Your task to perform on an android device: Go to Reddit.com Image 0: 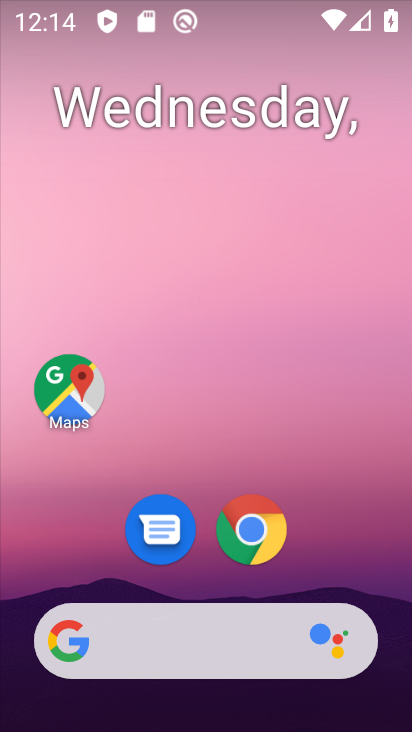
Step 0: drag from (316, 512) to (300, 214)
Your task to perform on an android device: Go to Reddit.com Image 1: 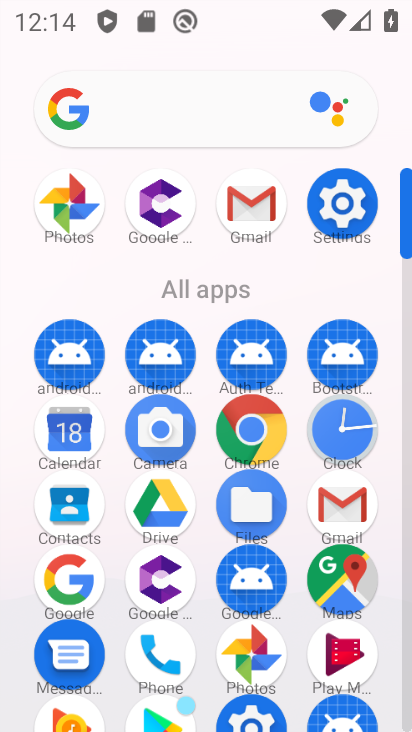
Step 1: click (74, 582)
Your task to perform on an android device: Go to Reddit.com Image 2: 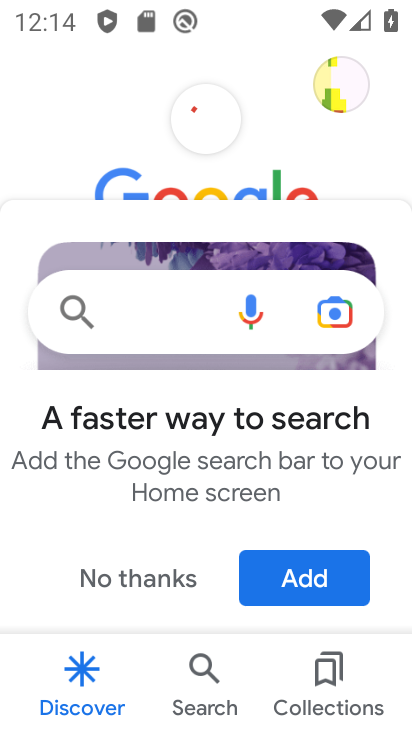
Step 2: drag from (153, 319) to (100, 319)
Your task to perform on an android device: Go to Reddit.com Image 3: 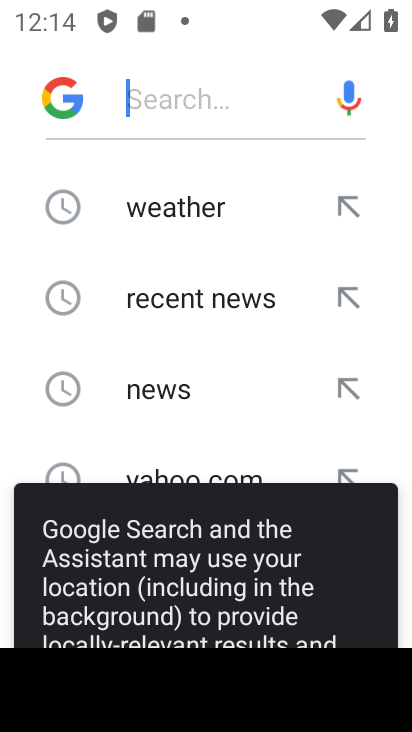
Step 3: drag from (205, 427) to (212, 213)
Your task to perform on an android device: Go to Reddit.com Image 4: 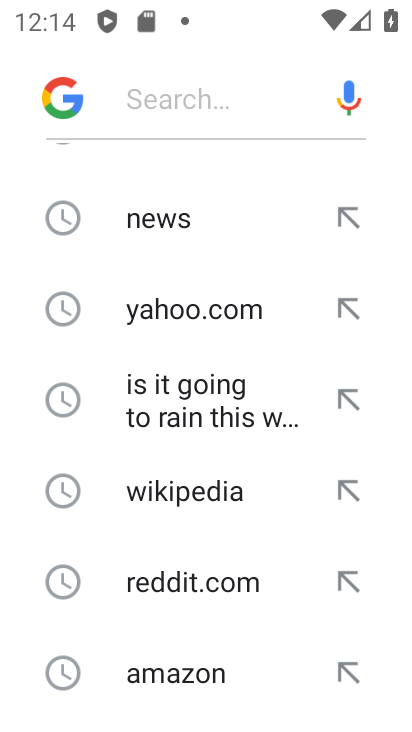
Step 4: drag from (199, 421) to (204, 238)
Your task to perform on an android device: Go to Reddit.com Image 5: 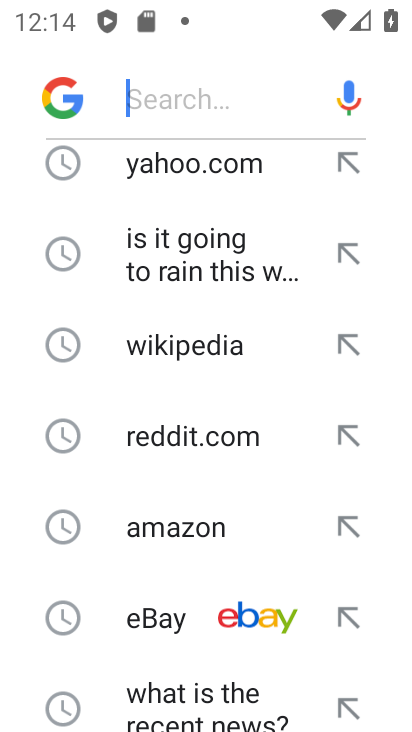
Step 5: click (220, 443)
Your task to perform on an android device: Go to Reddit.com Image 6: 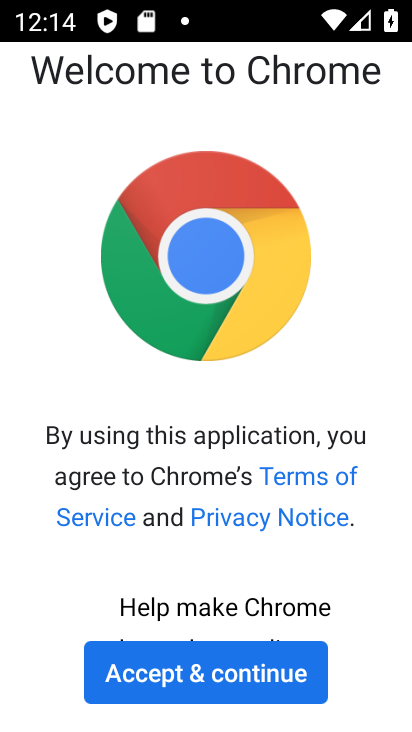
Step 6: click (272, 663)
Your task to perform on an android device: Go to Reddit.com Image 7: 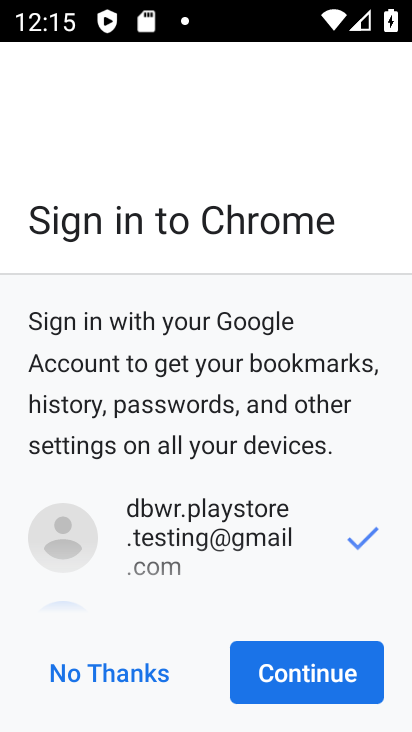
Step 7: click (272, 663)
Your task to perform on an android device: Go to Reddit.com Image 8: 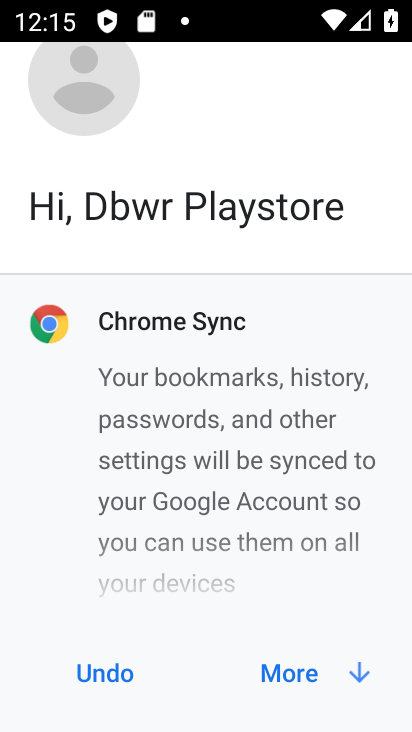
Step 8: click (276, 673)
Your task to perform on an android device: Go to Reddit.com Image 9: 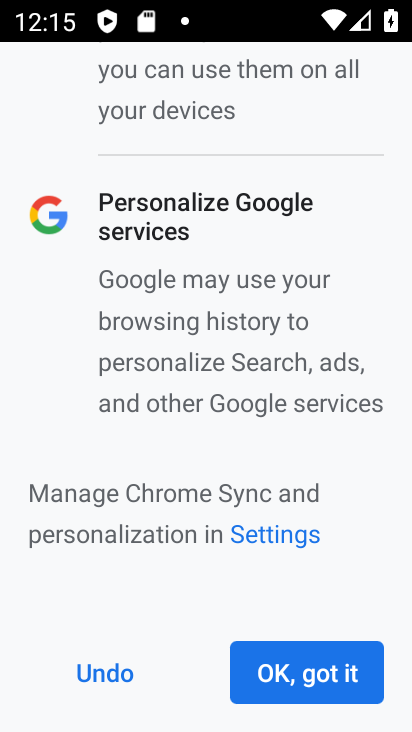
Step 9: click (276, 673)
Your task to perform on an android device: Go to Reddit.com Image 10: 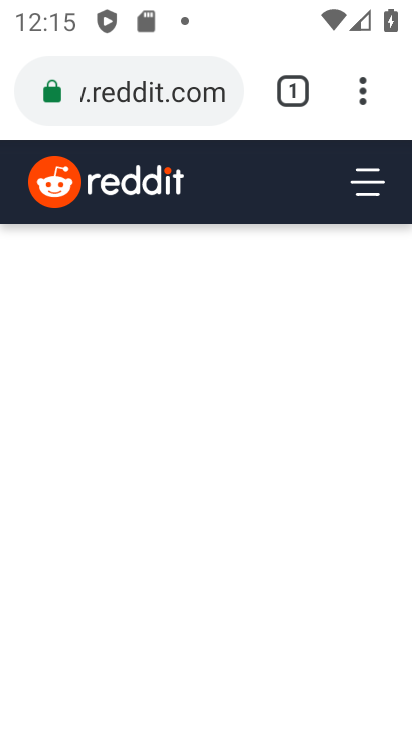
Step 10: task complete